Your task to perform on an android device: Open my contact list Image 0: 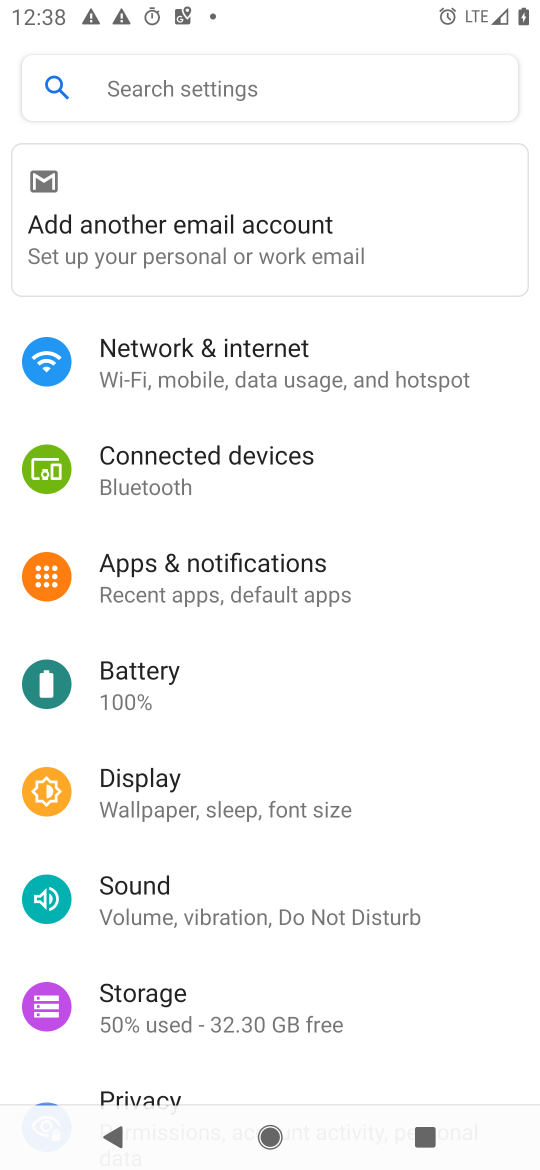
Step 0: drag from (235, 902) to (381, 363)
Your task to perform on an android device: Open my contact list Image 1: 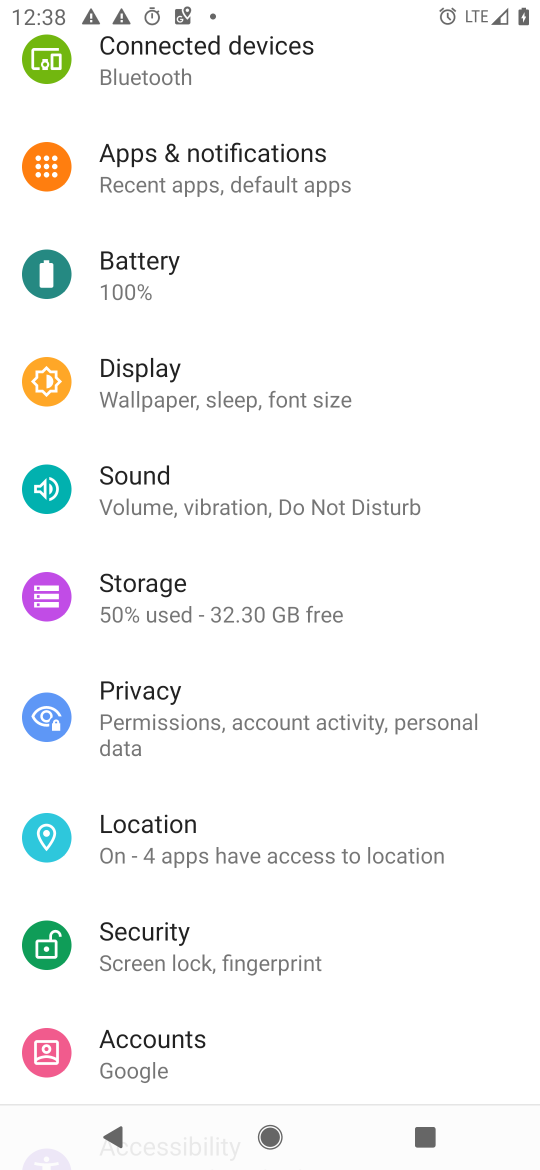
Step 1: press home button
Your task to perform on an android device: Open my contact list Image 2: 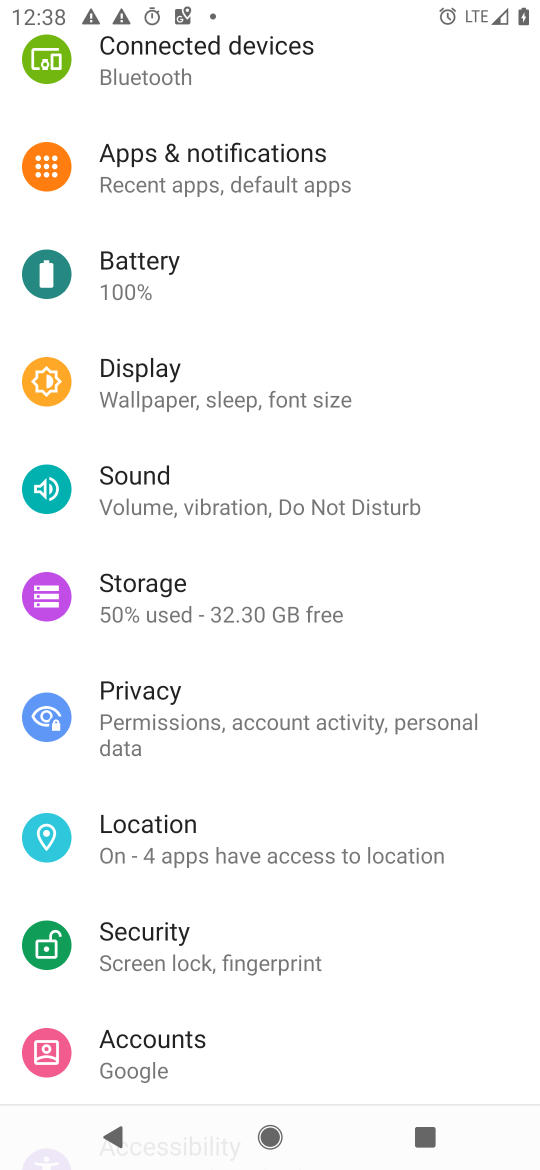
Step 2: click (323, 287)
Your task to perform on an android device: Open my contact list Image 3: 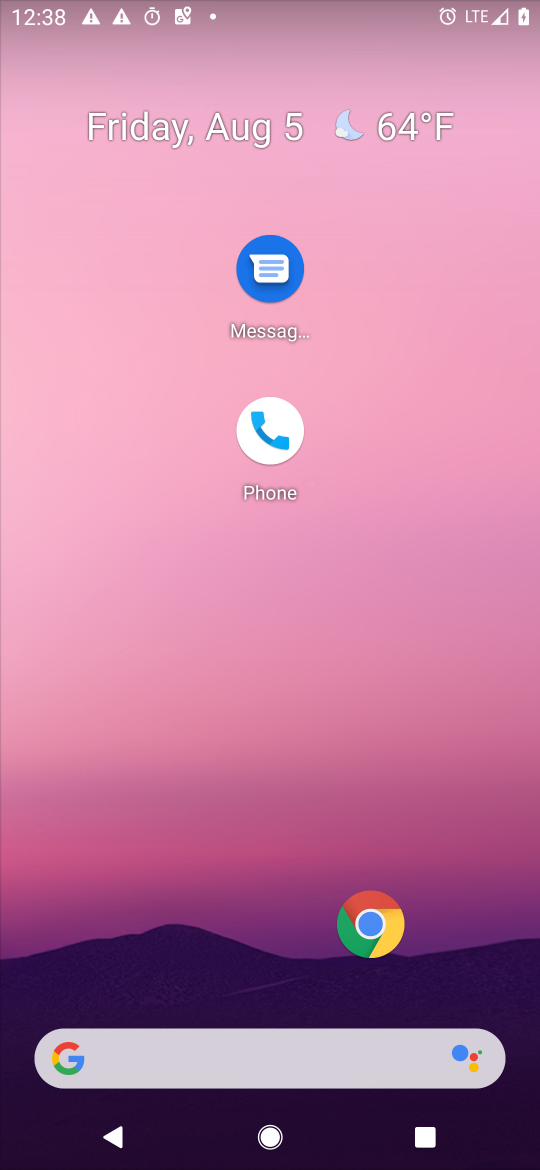
Step 3: drag from (232, 991) to (334, 164)
Your task to perform on an android device: Open my contact list Image 4: 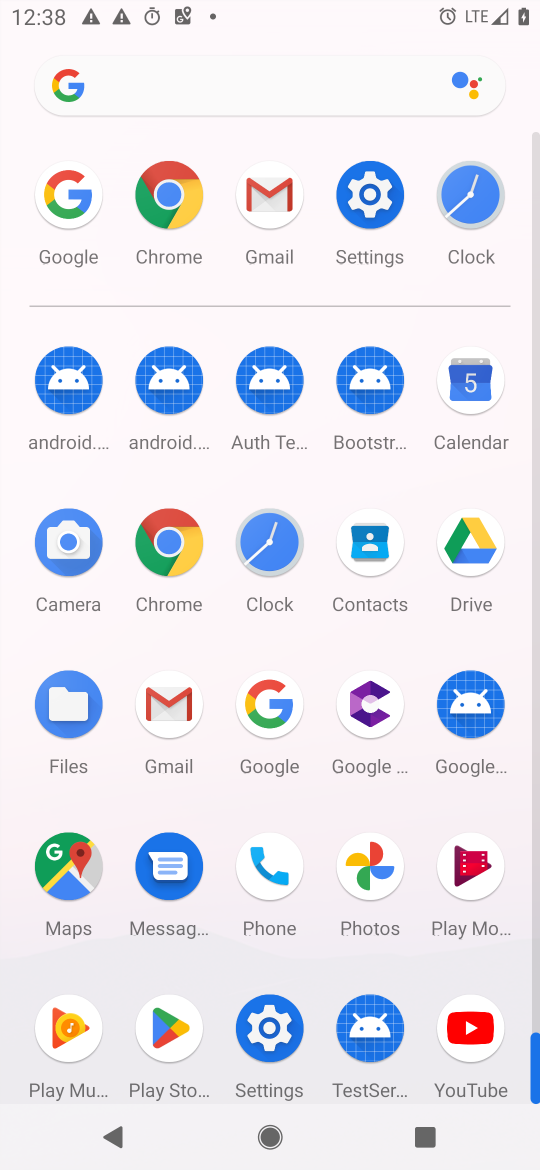
Step 4: click (255, 531)
Your task to perform on an android device: Open my contact list Image 5: 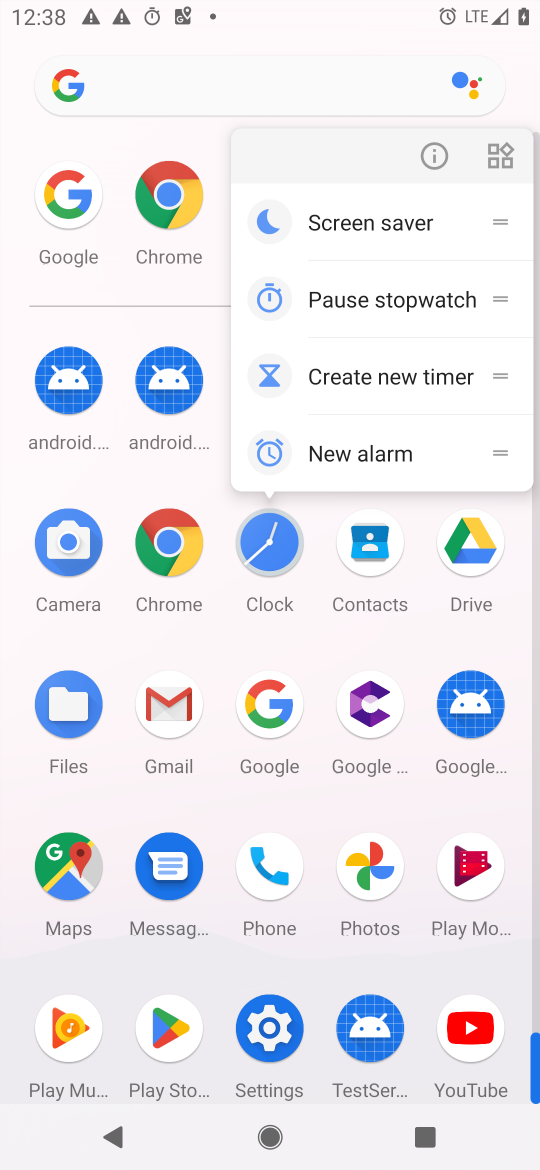
Step 5: click (363, 550)
Your task to perform on an android device: Open my contact list Image 6: 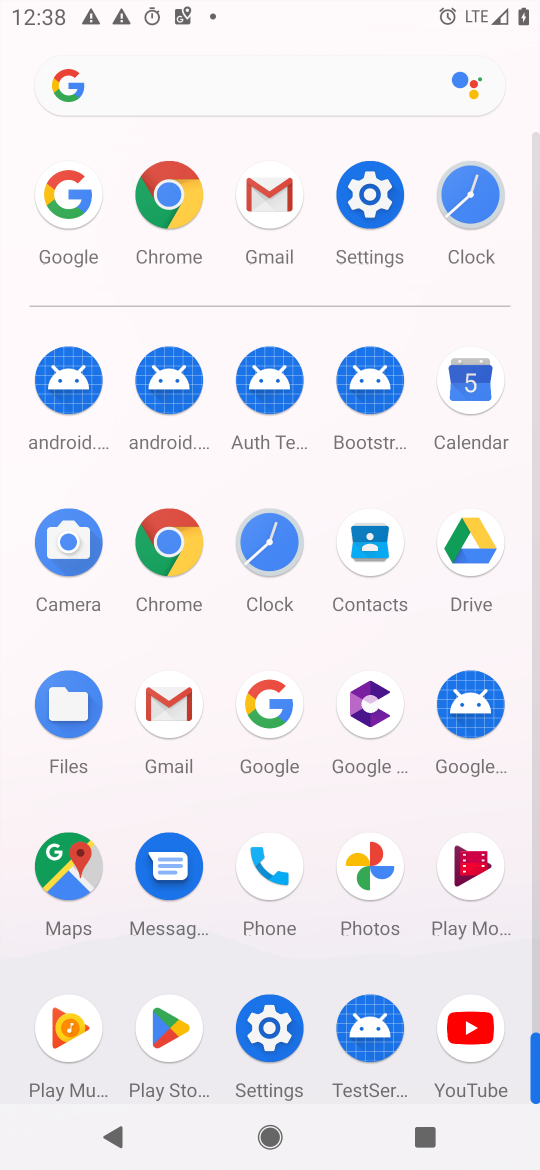
Step 6: click (373, 536)
Your task to perform on an android device: Open my contact list Image 7: 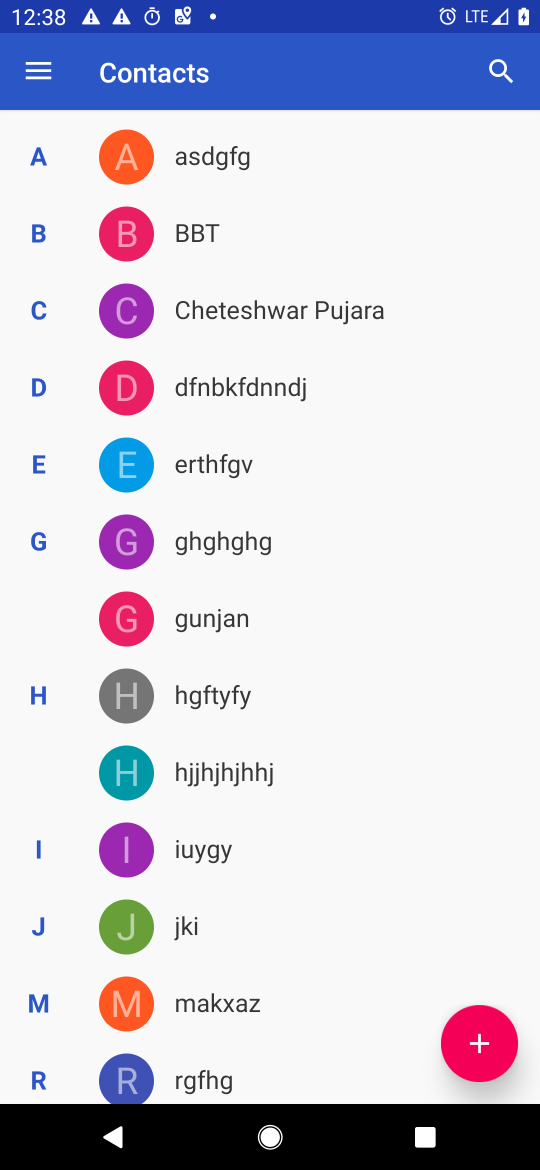
Step 7: task complete